Your task to perform on an android device: Go to Yahoo.com Image 0: 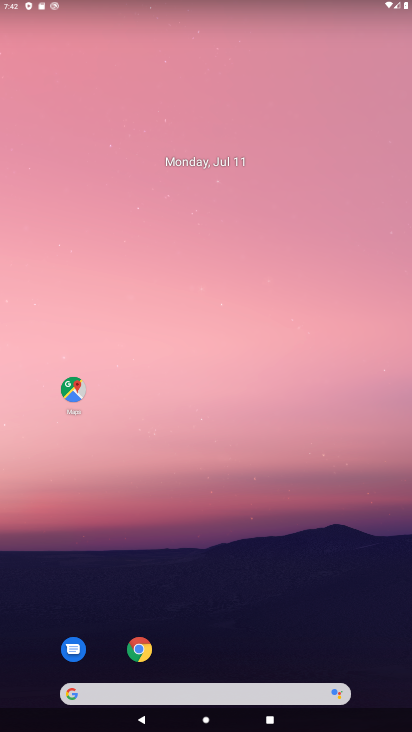
Step 0: click (139, 648)
Your task to perform on an android device: Go to Yahoo.com Image 1: 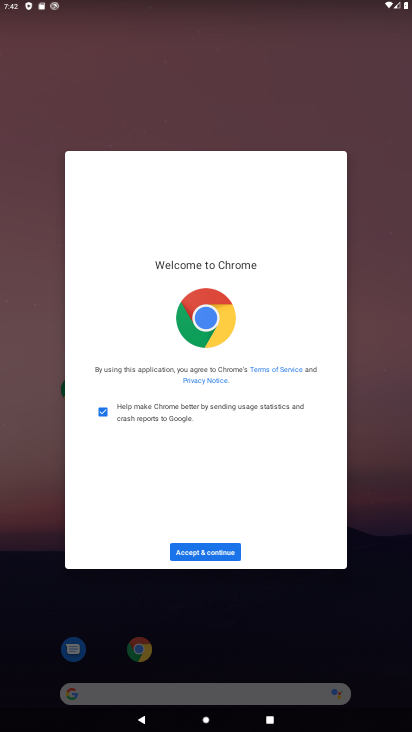
Step 1: click (186, 555)
Your task to perform on an android device: Go to Yahoo.com Image 2: 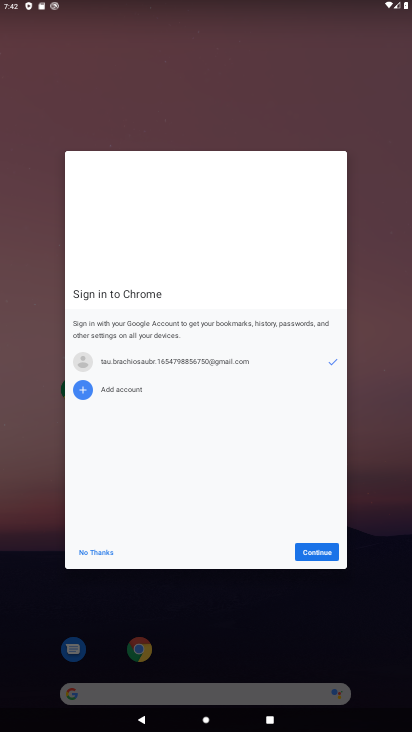
Step 2: click (305, 549)
Your task to perform on an android device: Go to Yahoo.com Image 3: 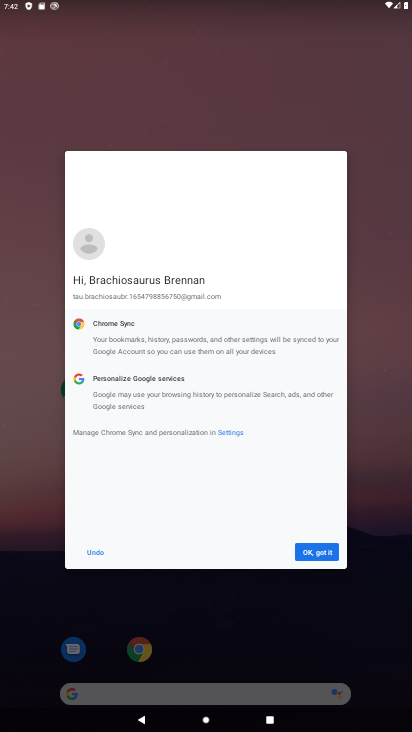
Step 3: click (305, 549)
Your task to perform on an android device: Go to Yahoo.com Image 4: 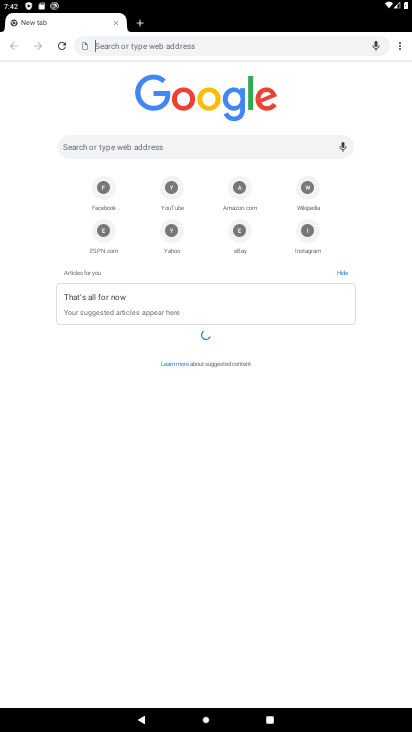
Step 4: click (121, 145)
Your task to perform on an android device: Go to Yahoo.com Image 5: 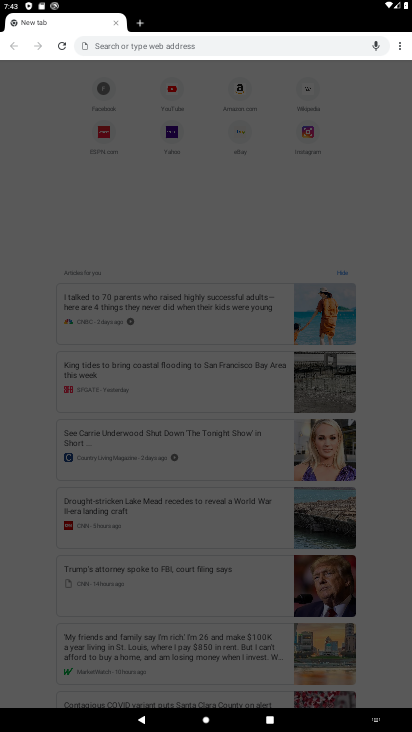
Step 5: type "Yahoo.com"
Your task to perform on an android device: Go to Yahoo.com Image 6: 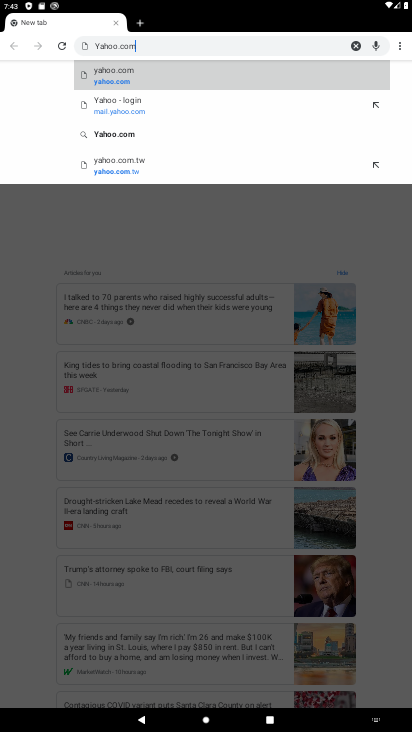
Step 6: click (121, 131)
Your task to perform on an android device: Go to Yahoo.com Image 7: 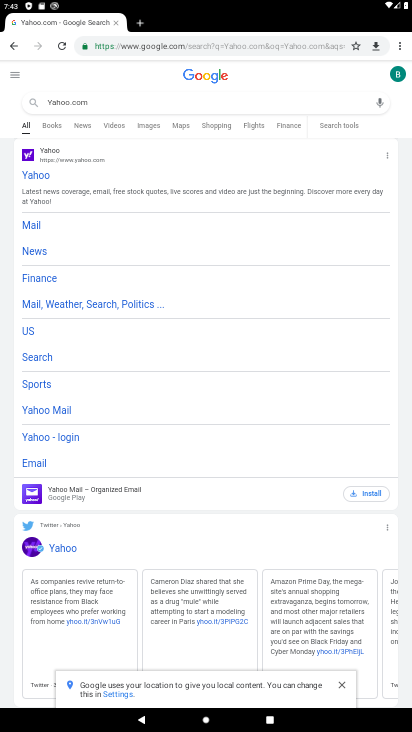
Step 7: click (37, 185)
Your task to perform on an android device: Go to Yahoo.com Image 8: 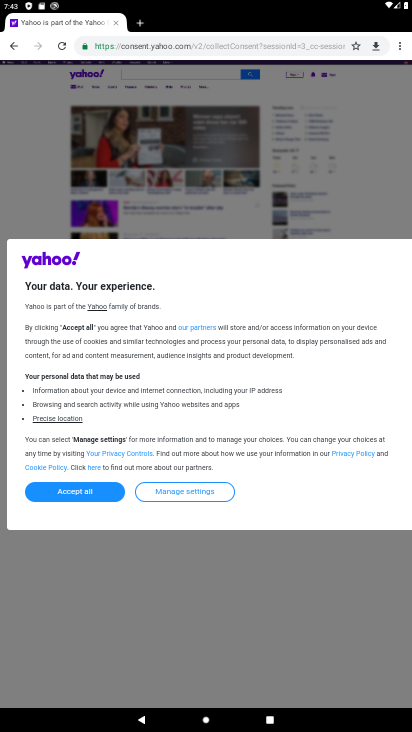
Step 8: click (97, 493)
Your task to perform on an android device: Go to Yahoo.com Image 9: 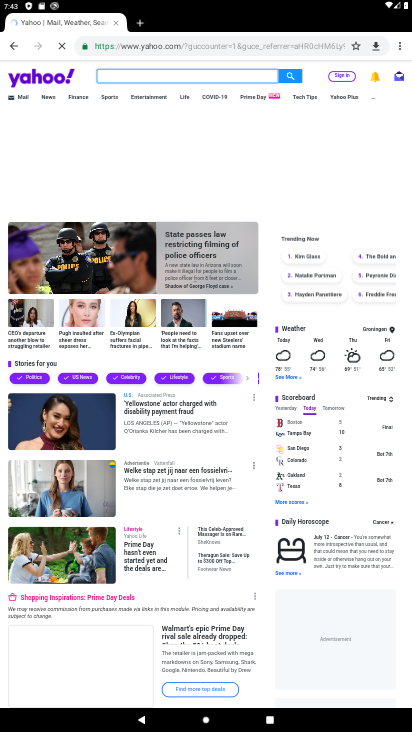
Step 9: task complete